Your task to perform on an android device: Open notification settings Image 0: 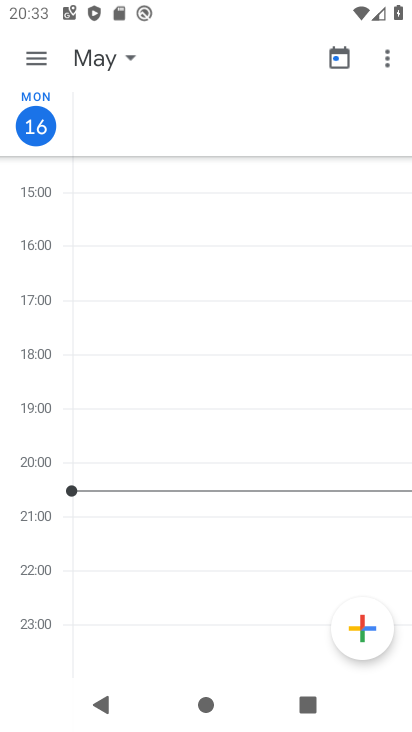
Step 0: press home button
Your task to perform on an android device: Open notification settings Image 1: 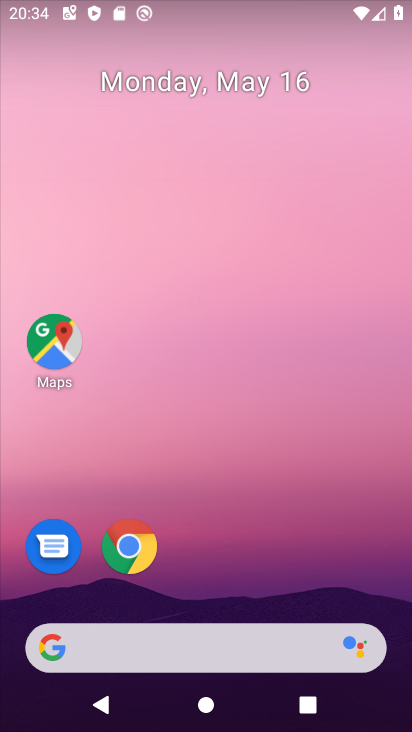
Step 1: drag from (252, 582) to (233, 160)
Your task to perform on an android device: Open notification settings Image 2: 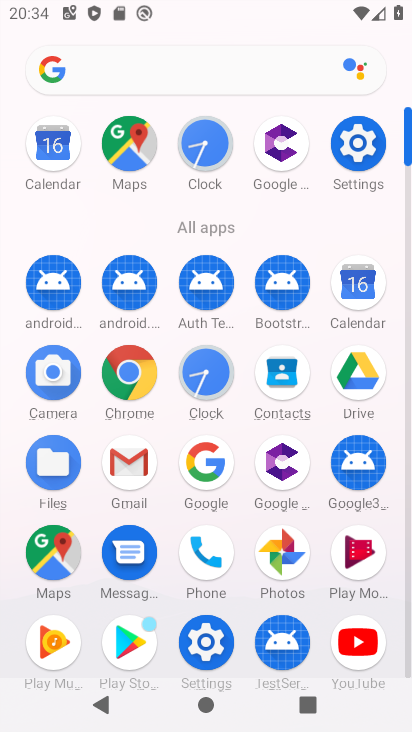
Step 2: click (351, 148)
Your task to perform on an android device: Open notification settings Image 3: 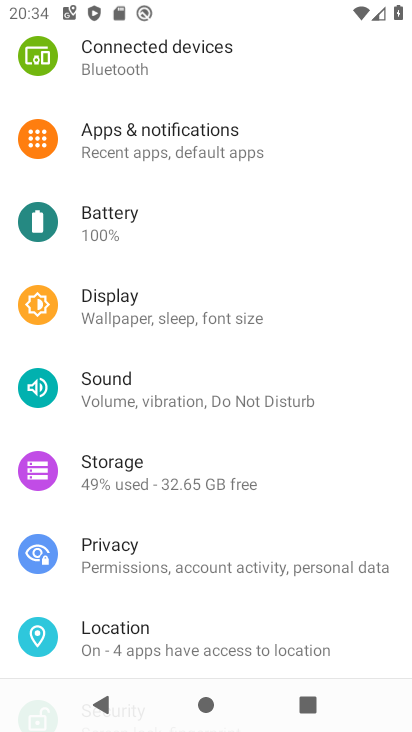
Step 3: click (275, 155)
Your task to perform on an android device: Open notification settings Image 4: 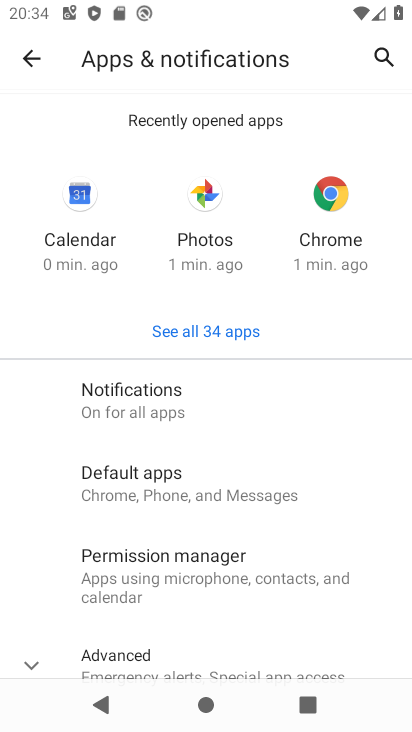
Step 4: click (274, 389)
Your task to perform on an android device: Open notification settings Image 5: 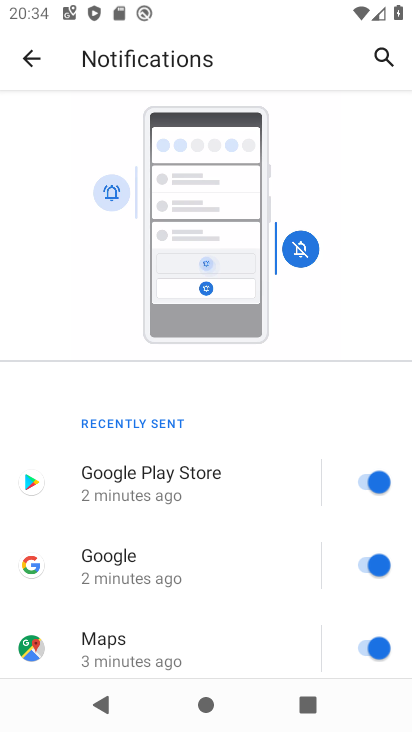
Step 5: task complete